Your task to perform on an android device: Open ESPN.com Image 0: 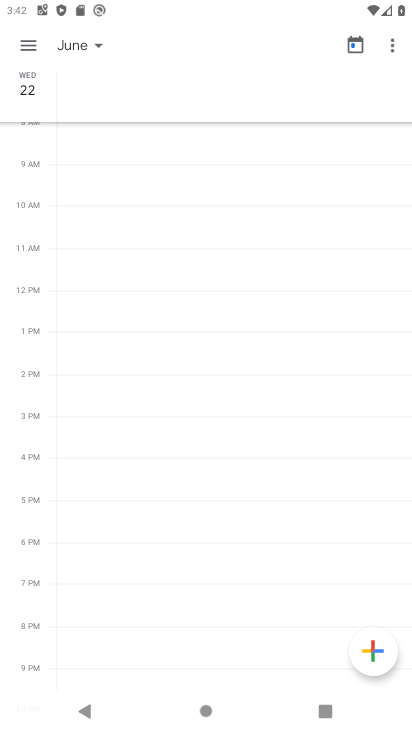
Step 0: press home button
Your task to perform on an android device: Open ESPN.com Image 1: 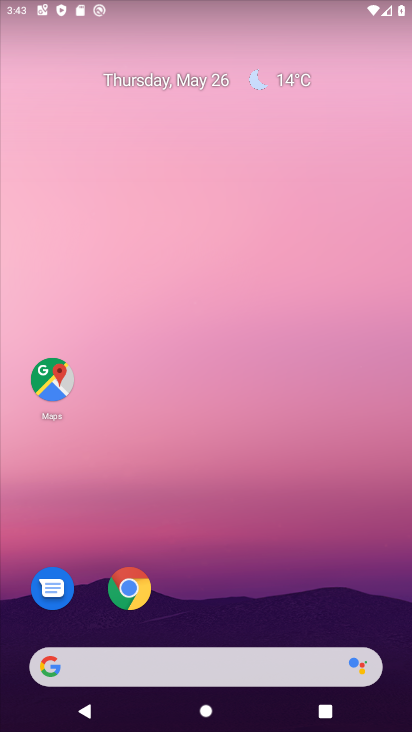
Step 1: click (204, 664)
Your task to perform on an android device: Open ESPN.com Image 2: 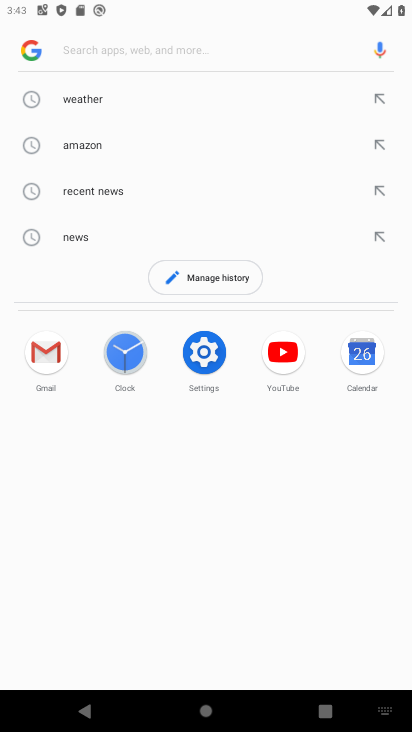
Step 2: type "espn.com"
Your task to perform on an android device: Open ESPN.com Image 3: 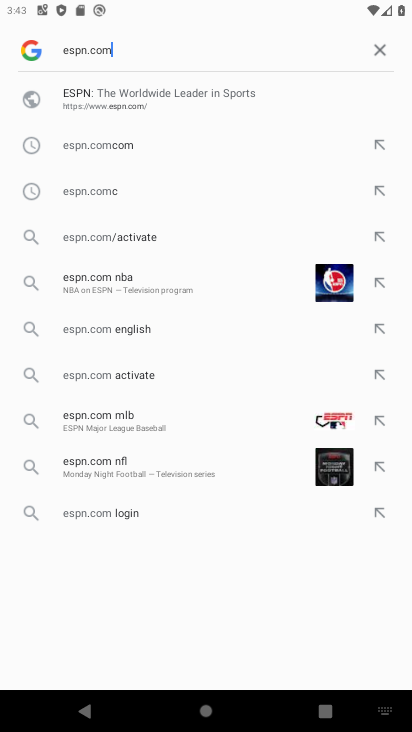
Step 3: click (96, 79)
Your task to perform on an android device: Open ESPN.com Image 4: 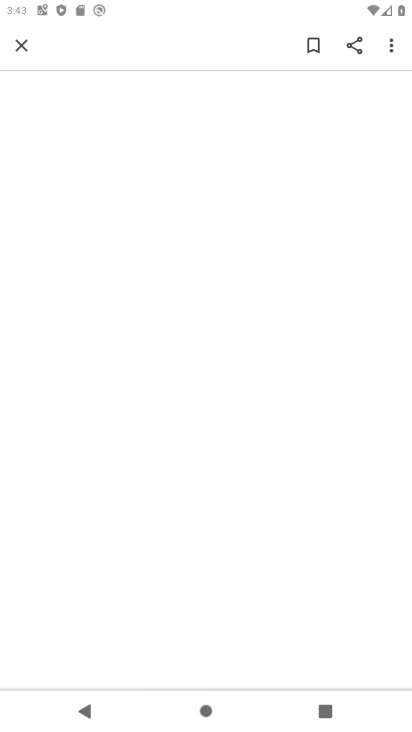
Step 4: task complete